Your task to perform on an android device: make emails show in primary in the gmail app Image 0: 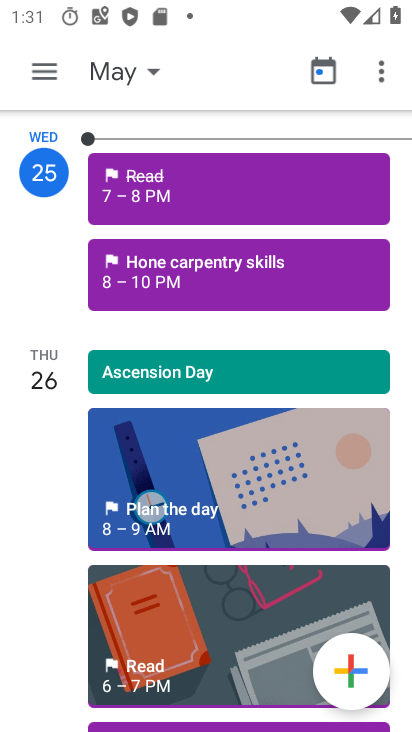
Step 0: press home button
Your task to perform on an android device: make emails show in primary in the gmail app Image 1: 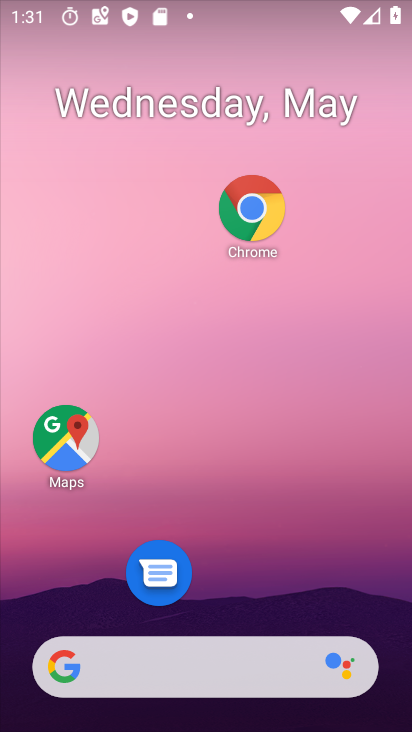
Step 1: drag from (210, 594) to (232, 4)
Your task to perform on an android device: make emails show in primary in the gmail app Image 2: 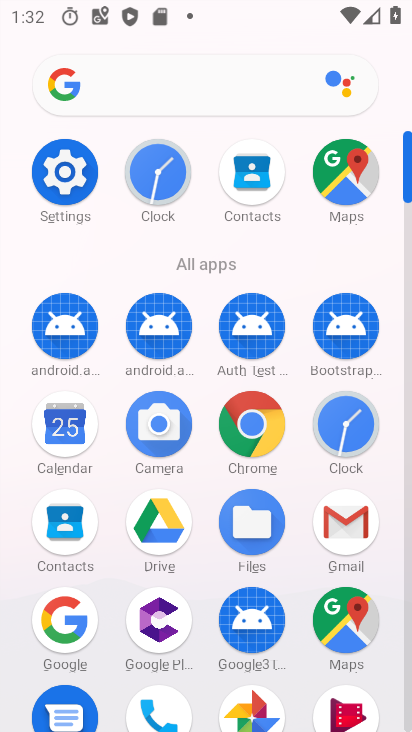
Step 2: click (347, 514)
Your task to perform on an android device: make emails show in primary in the gmail app Image 3: 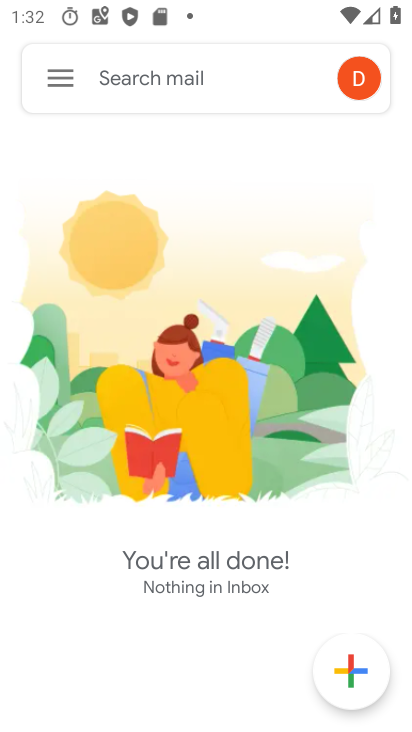
Step 3: click (74, 84)
Your task to perform on an android device: make emails show in primary in the gmail app Image 4: 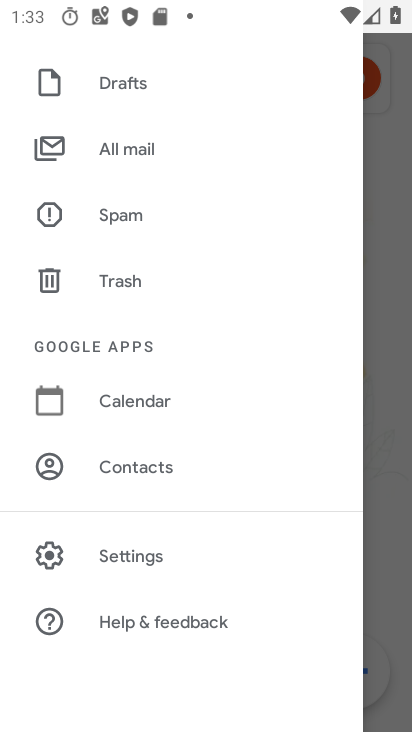
Step 4: drag from (246, 110) to (7, 428)
Your task to perform on an android device: make emails show in primary in the gmail app Image 5: 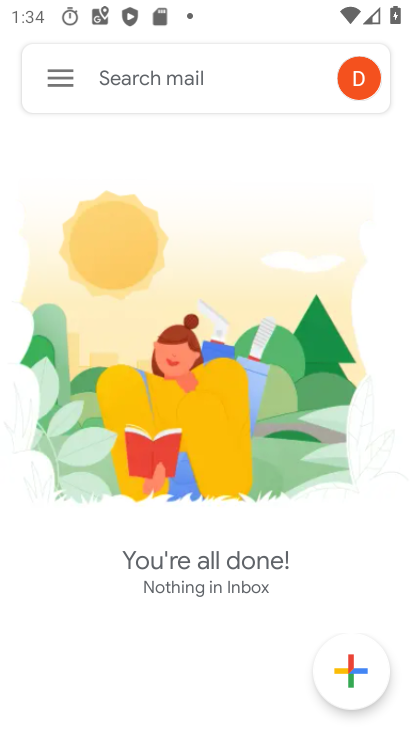
Step 5: drag from (152, 152) to (192, 731)
Your task to perform on an android device: make emails show in primary in the gmail app Image 6: 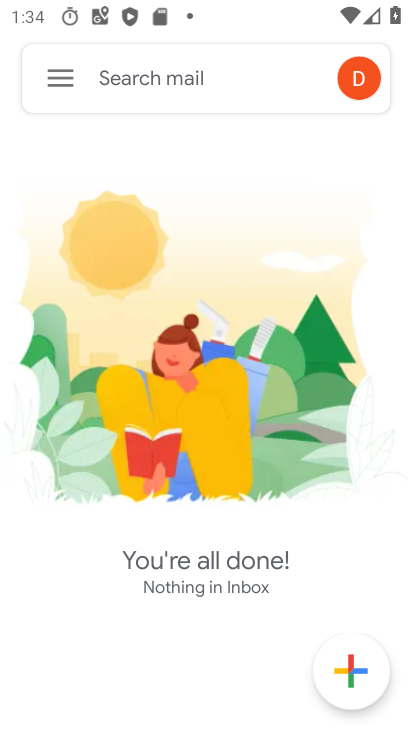
Step 6: click (63, 91)
Your task to perform on an android device: make emails show in primary in the gmail app Image 7: 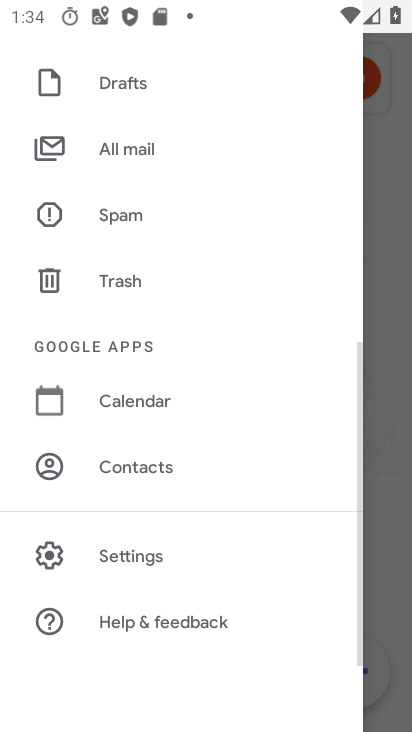
Step 7: task complete